Your task to perform on an android device: open device folders in google photos Image 0: 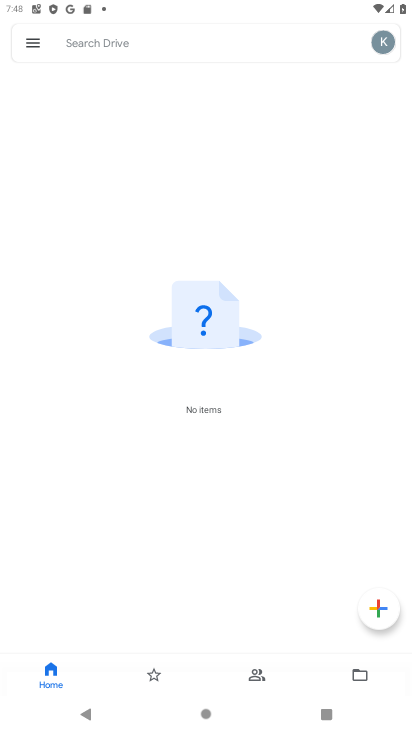
Step 0: press home button
Your task to perform on an android device: open device folders in google photos Image 1: 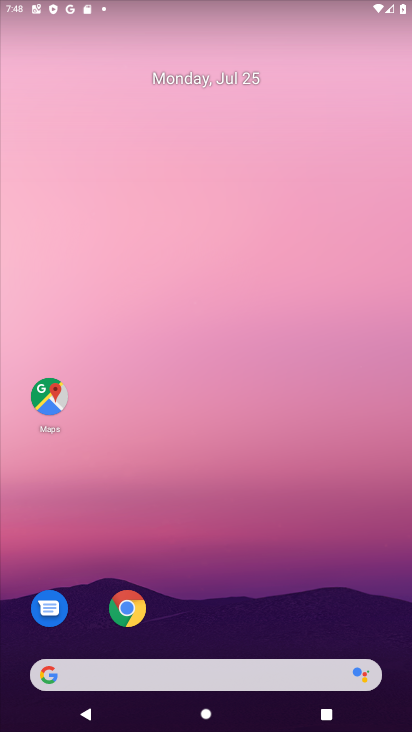
Step 1: drag from (265, 671) to (231, 174)
Your task to perform on an android device: open device folders in google photos Image 2: 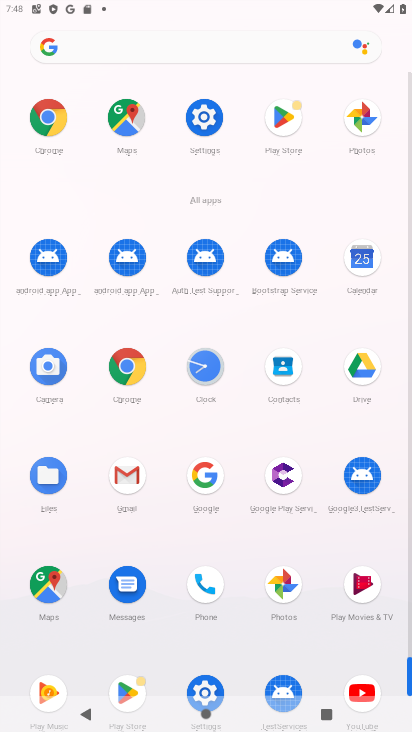
Step 2: click (283, 598)
Your task to perform on an android device: open device folders in google photos Image 3: 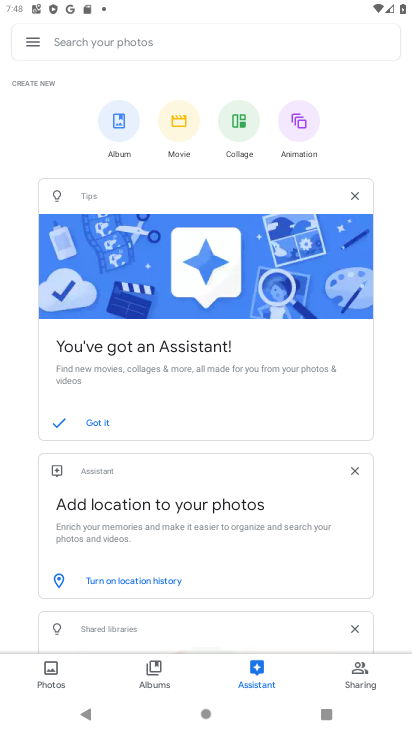
Step 3: click (30, 47)
Your task to perform on an android device: open device folders in google photos Image 4: 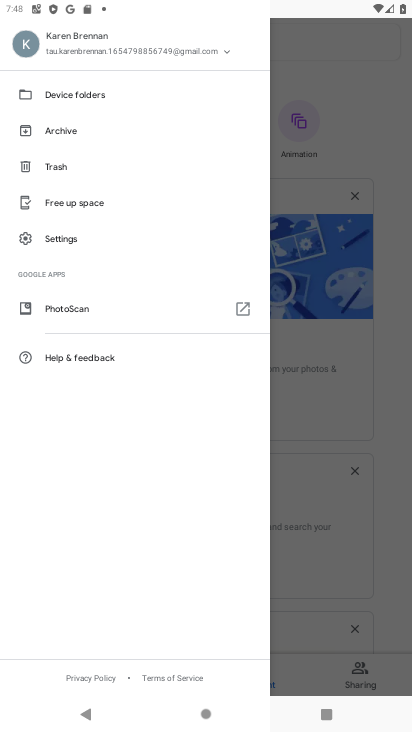
Step 4: click (82, 95)
Your task to perform on an android device: open device folders in google photos Image 5: 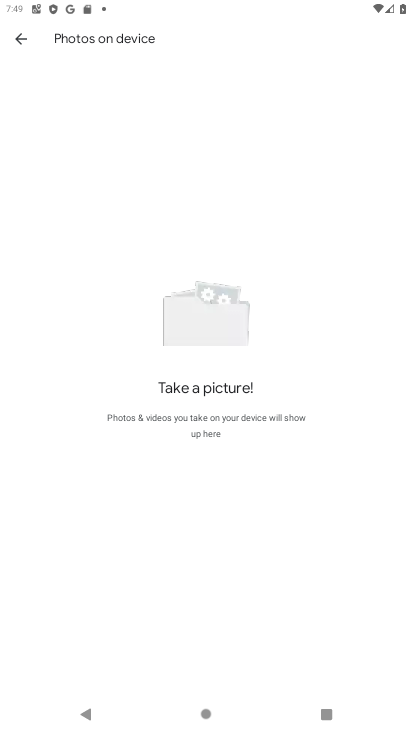
Step 5: task complete